Your task to perform on an android device: turn off location history Image 0: 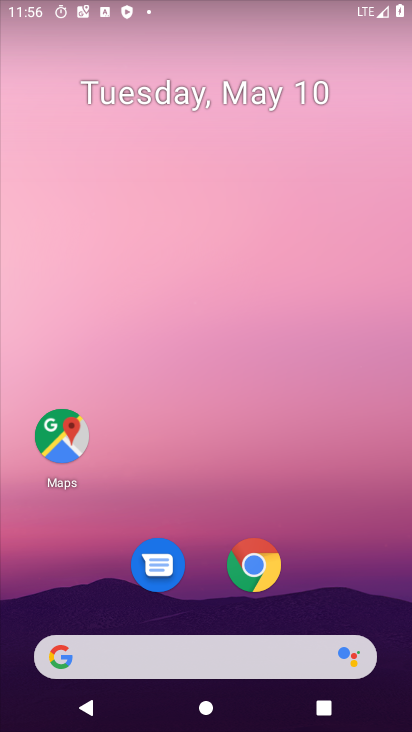
Step 0: drag from (191, 603) to (216, 236)
Your task to perform on an android device: turn off location history Image 1: 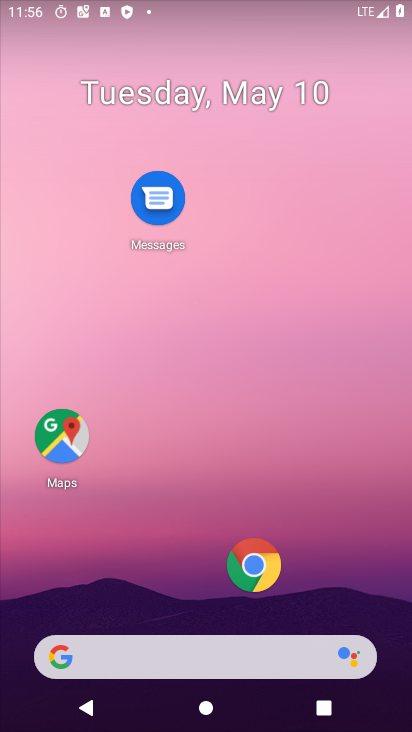
Step 1: drag from (154, 607) to (202, 122)
Your task to perform on an android device: turn off location history Image 2: 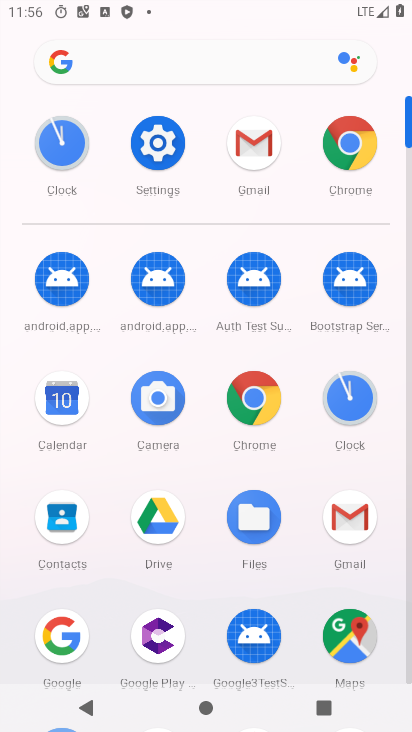
Step 2: click (159, 155)
Your task to perform on an android device: turn off location history Image 3: 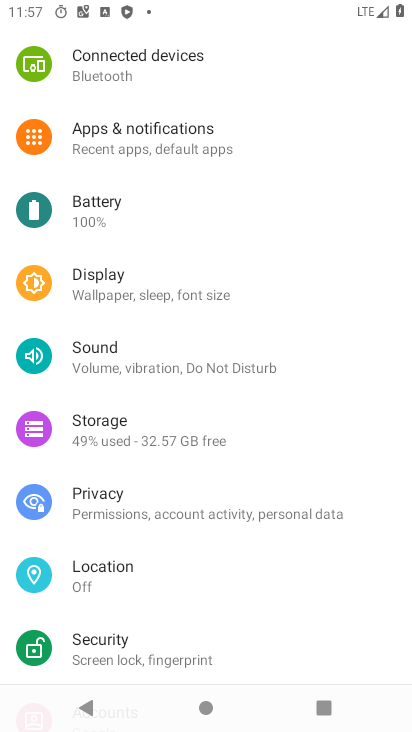
Step 3: click (108, 587)
Your task to perform on an android device: turn off location history Image 4: 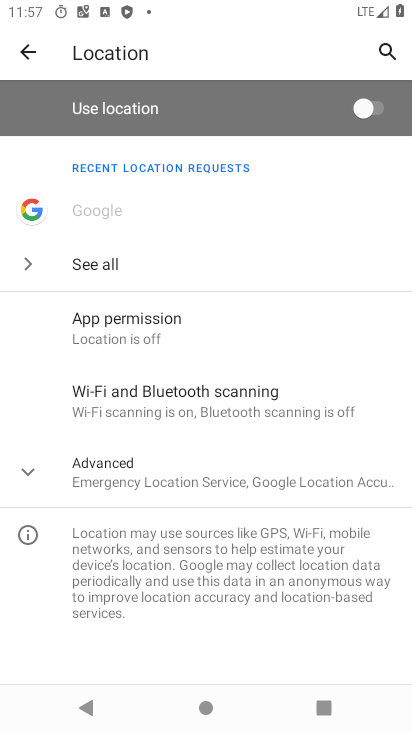
Step 4: click (119, 477)
Your task to perform on an android device: turn off location history Image 5: 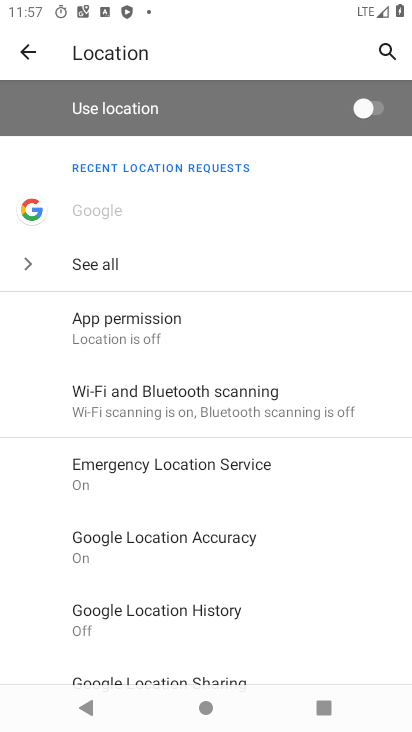
Step 5: task complete